Your task to perform on an android device: create a new album in the google photos Image 0: 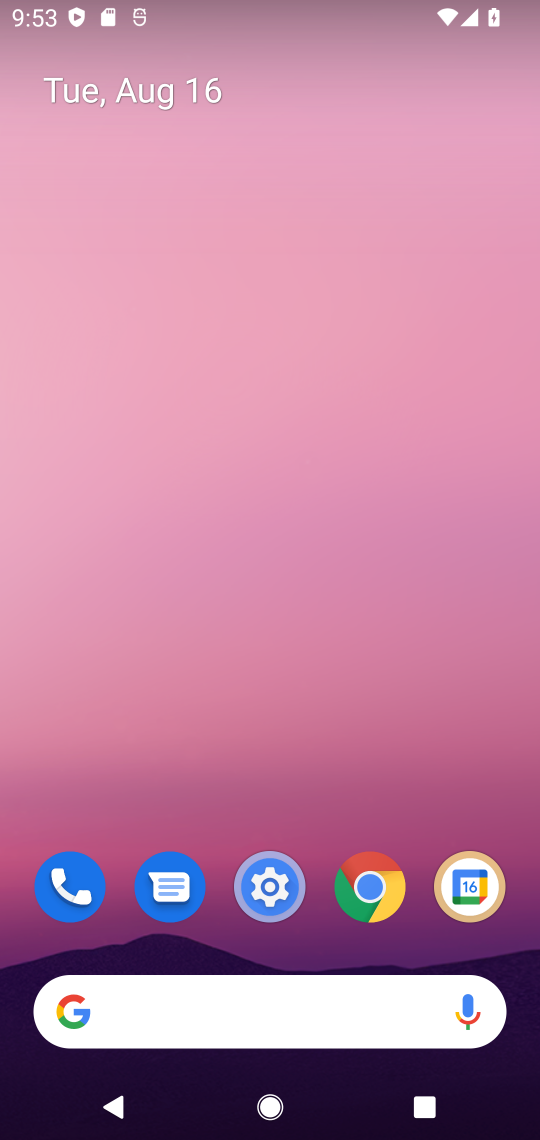
Step 0: press home button
Your task to perform on an android device: create a new album in the google photos Image 1: 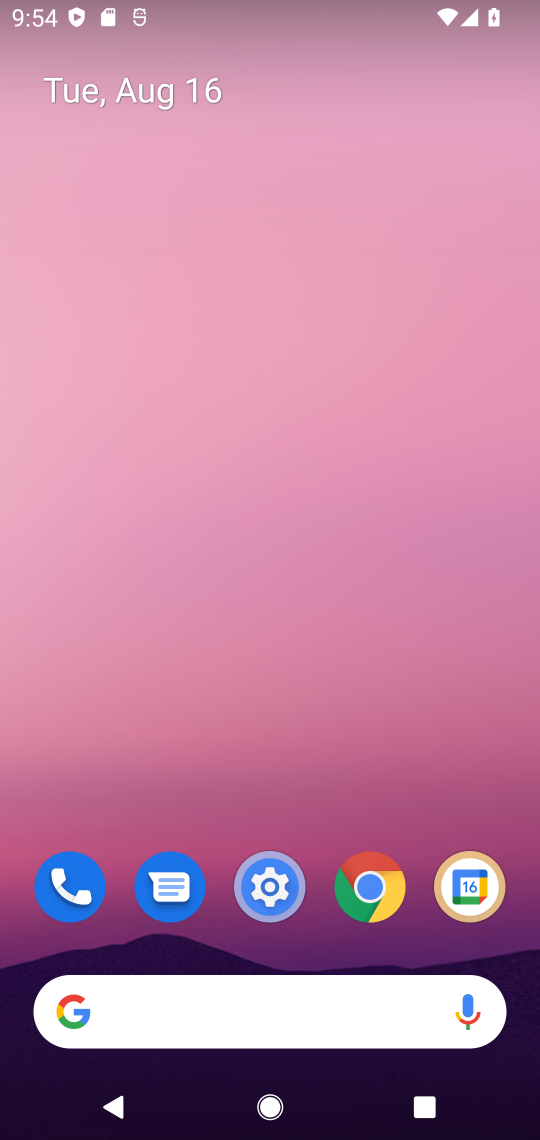
Step 1: drag from (414, 769) to (463, 216)
Your task to perform on an android device: create a new album in the google photos Image 2: 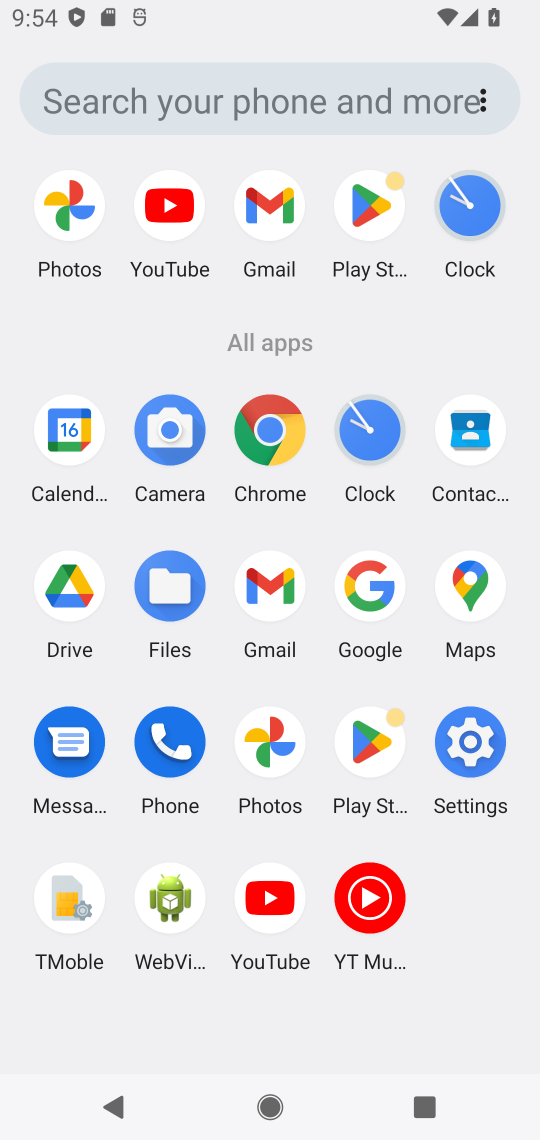
Step 2: click (259, 757)
Your task to perform on an android device: create a new album in the google photos Image 3: 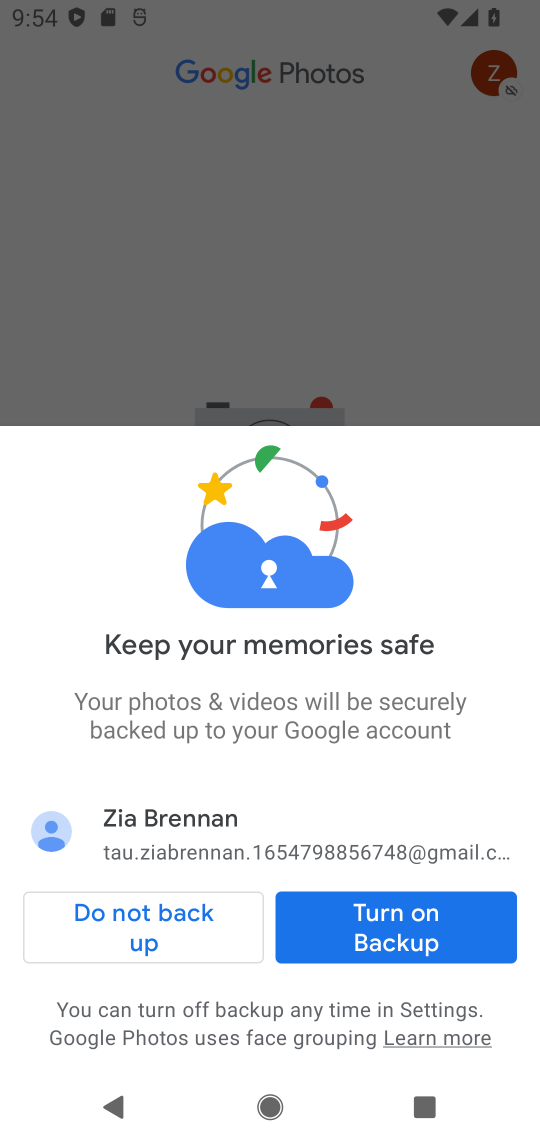
Step 3: click (162, 933)
Your task to perform on an android device: create a new album in the google photos Image 4: 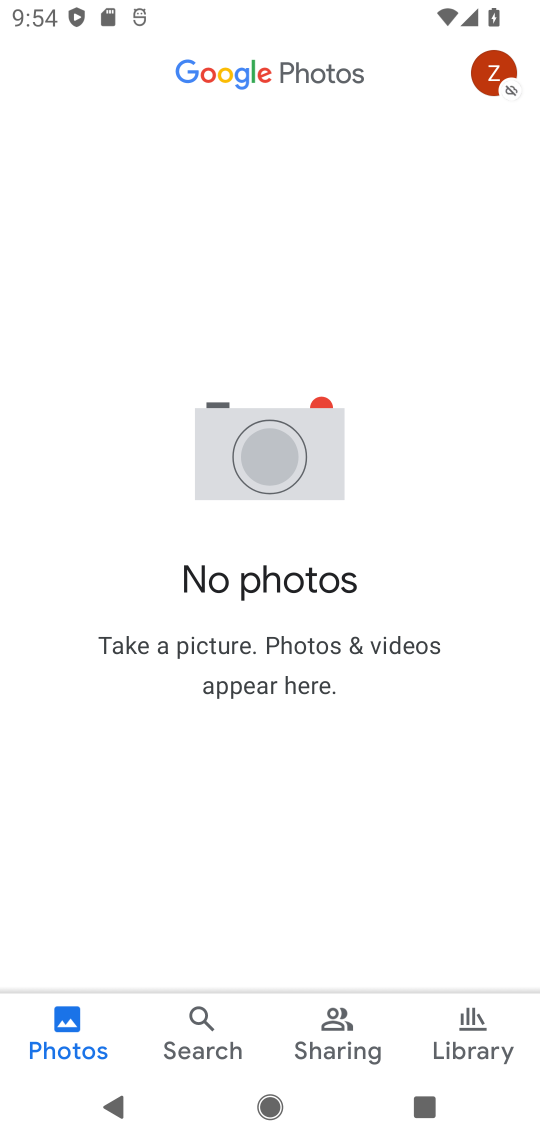
Step 4: click (469, 1037)
Your task to perform on an android device: create a new album in the google photos Image 5: 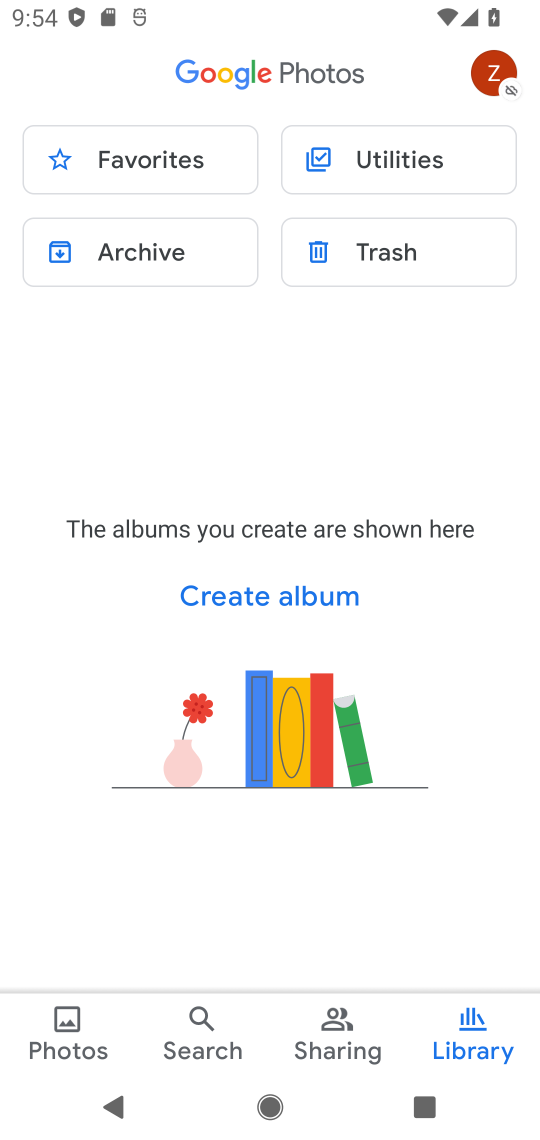
Step 5: click (320, 597)
Your task to perform on an android device: create a new album in the google photos Image 6: 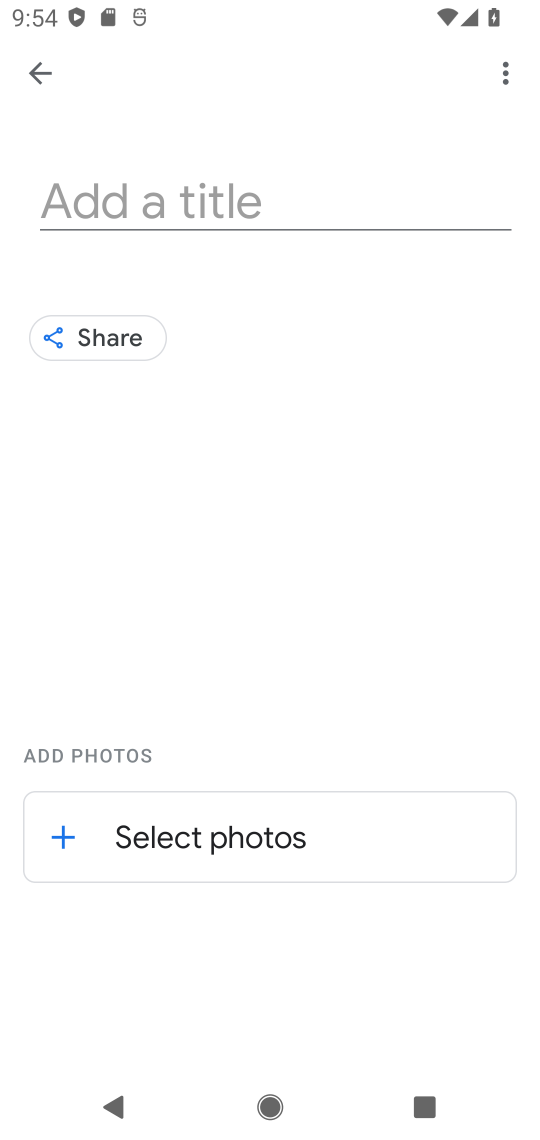
Step 6: click (296, 214)
Your task to perform on an android device: create a new album in the google photos Image 7: 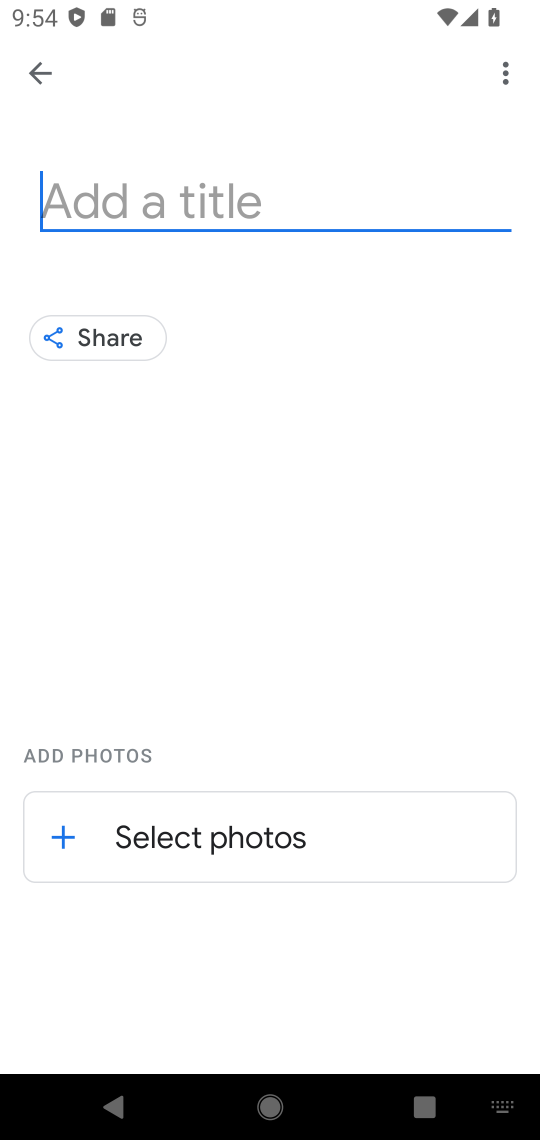
Step 7: type "fav"
Your task to perform on an android device: create a new album in the google photos Image 8: 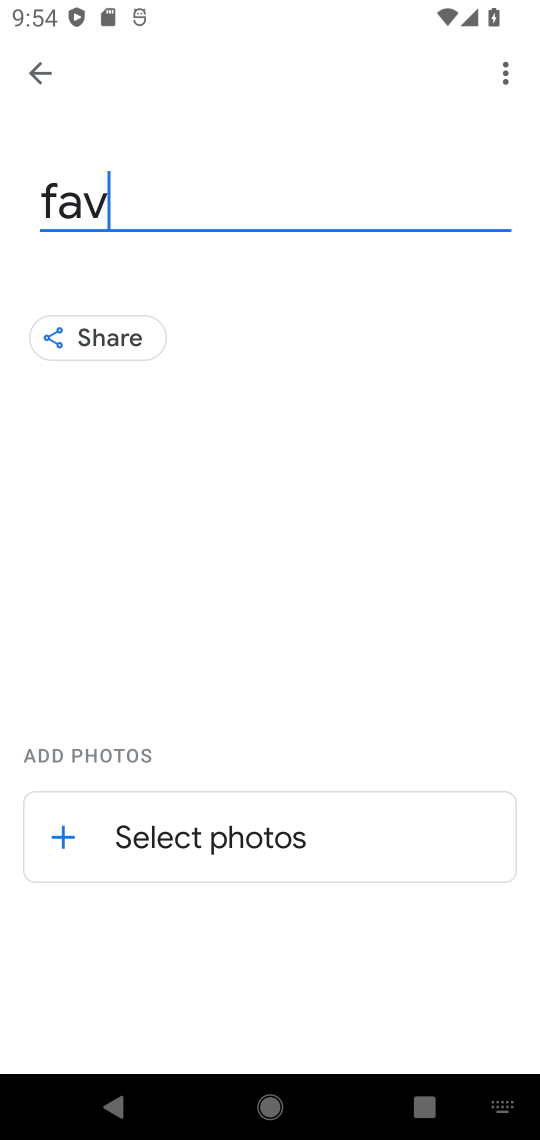
Step 8: click (278, 834)
Your task to perform on an android device: create a new album in the google photos Image 9: 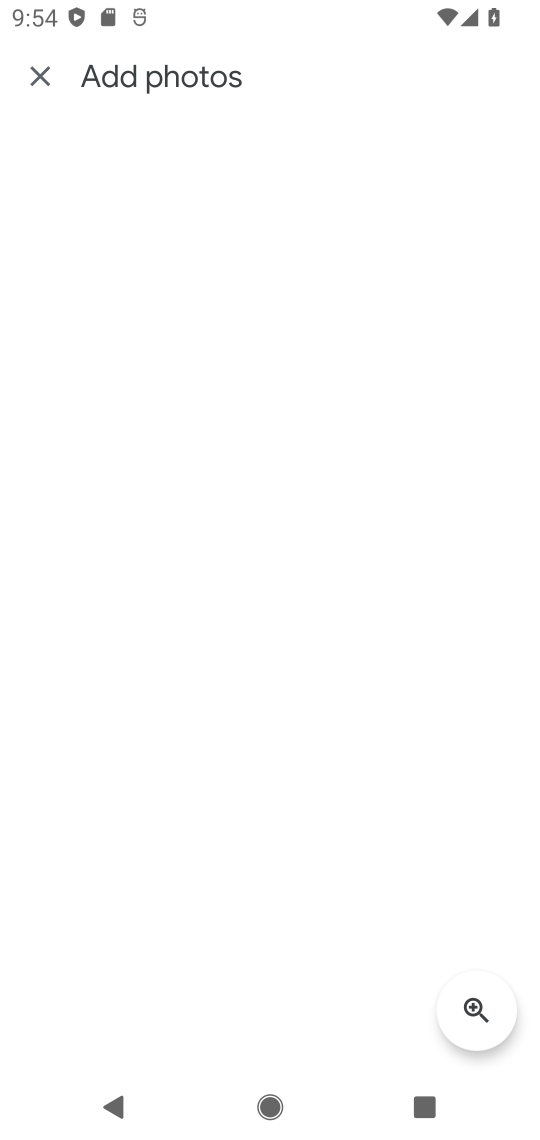
Step 9: task complete